Your task to perform on an android device: turn on the 12-hour format for clock Image 0: 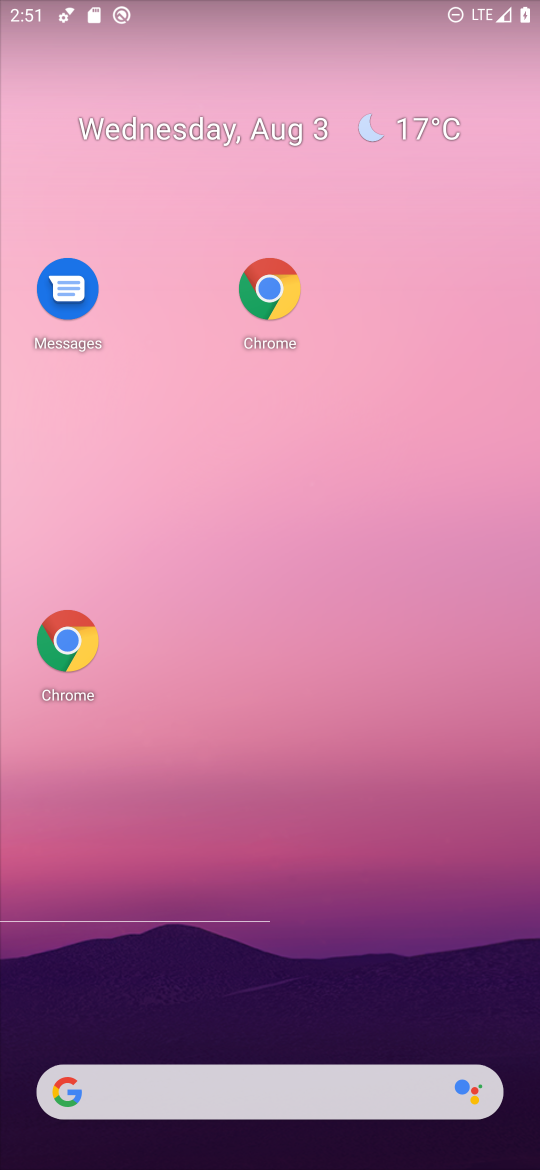
Step 0: drag from (385, 877) to (350, 52)
Your task to perform on an android device: turn on the 12-hour format for clock Image 1: 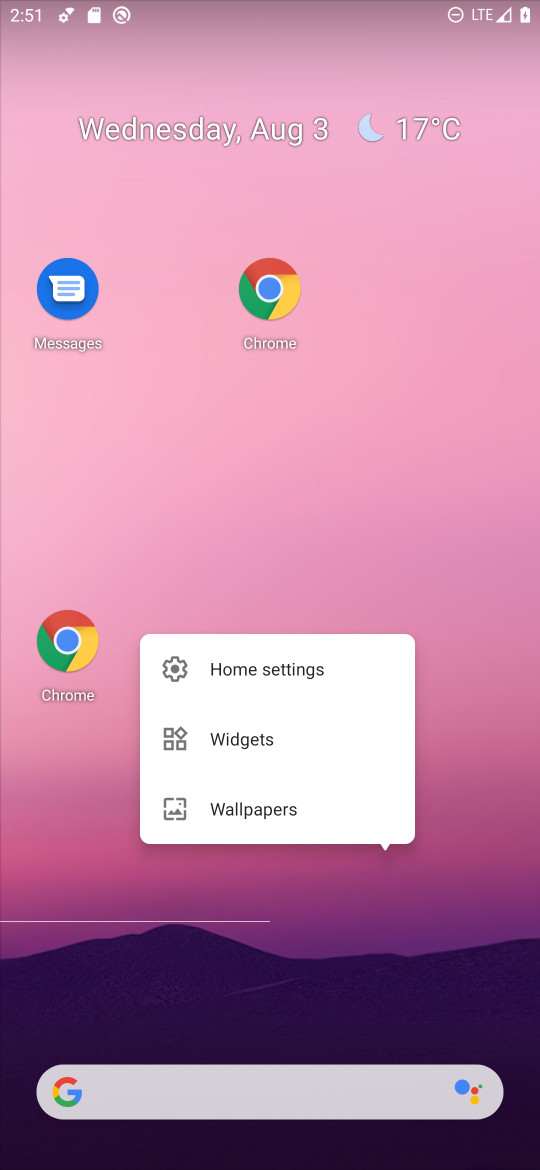
Step 1: click (354, 445)
Your task to perform on an android device: turn on the 12-hour format for clock Image 2: 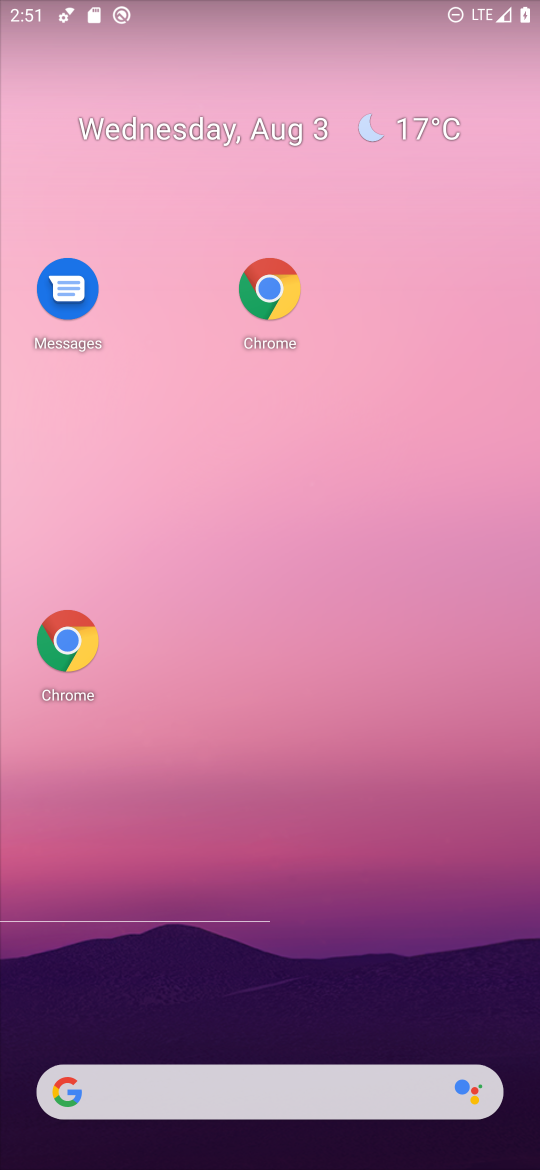
Step 2: drag from (398, 901) to (350, 123)
Your task to perform on an android device: turn on the 12-hour format for clock Image 3: 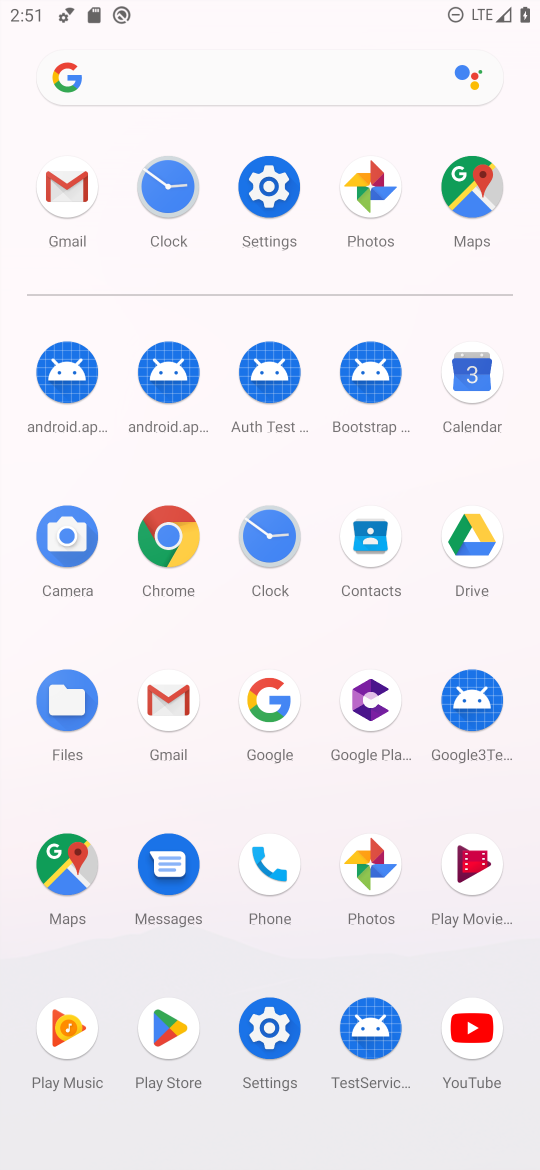
Step 3: click (284, 556)
Your task to perform on an android device: turn on the 12-hour format for clock Image 4: 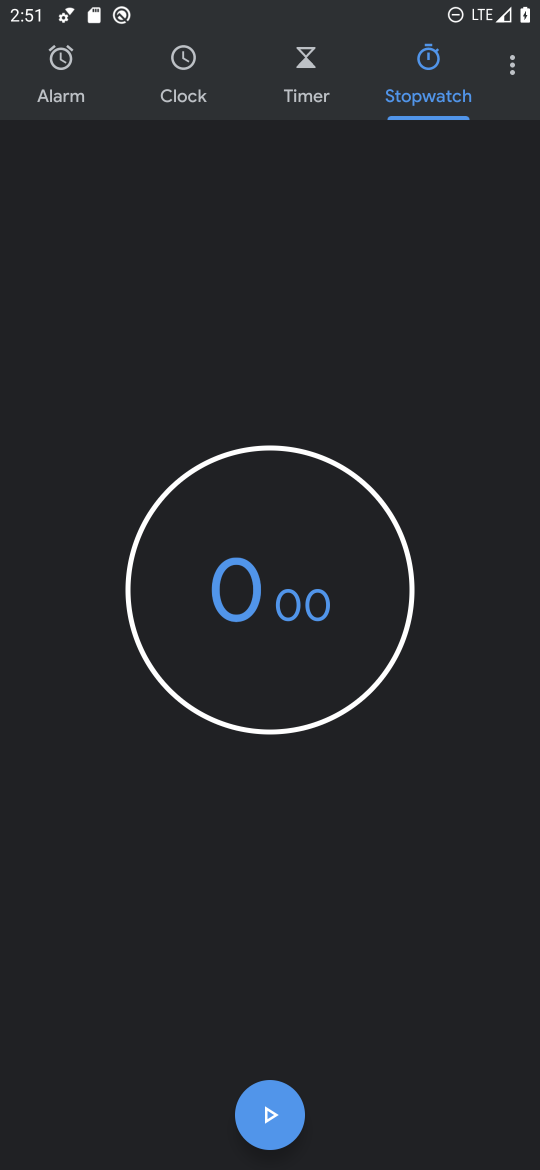
Step 4: click (505, 69)
Your task to perform on an android device: turn on the 12-hour format for clock Image 5: 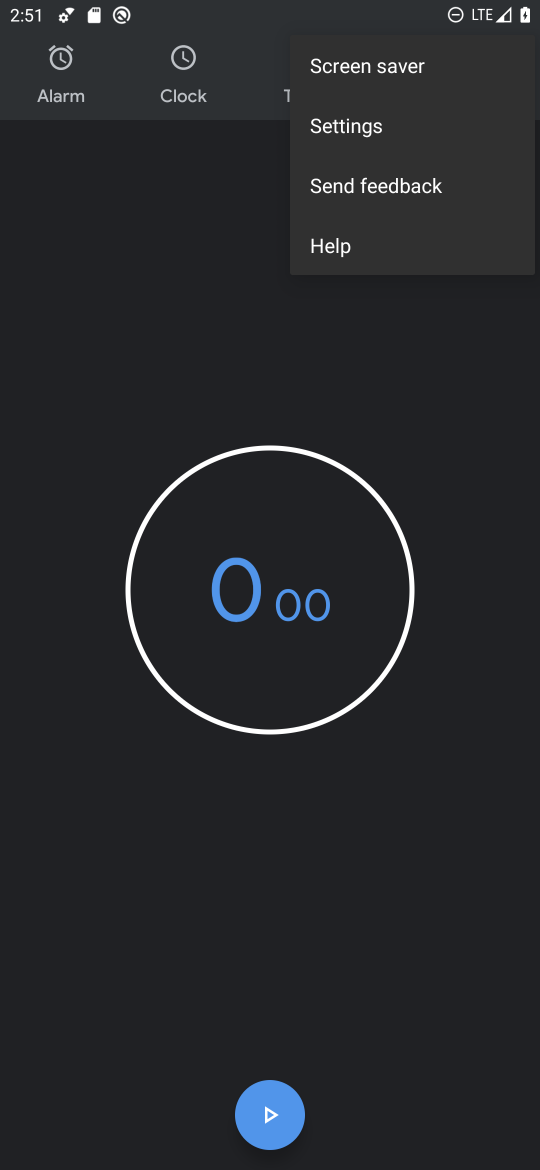
Step 5: click (363, 138)
Your task to perform on an android device: turn on the 12-hour format for clock Image 6: 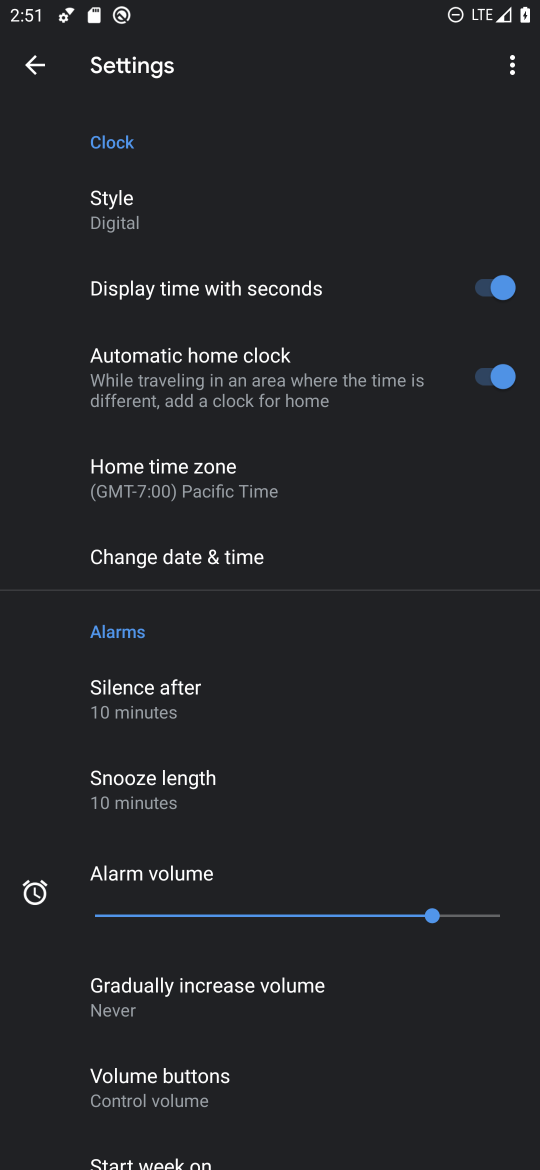
Step 6: task complete